Your task to perform on an android device: visit the assistant section in the google photos Image 0: 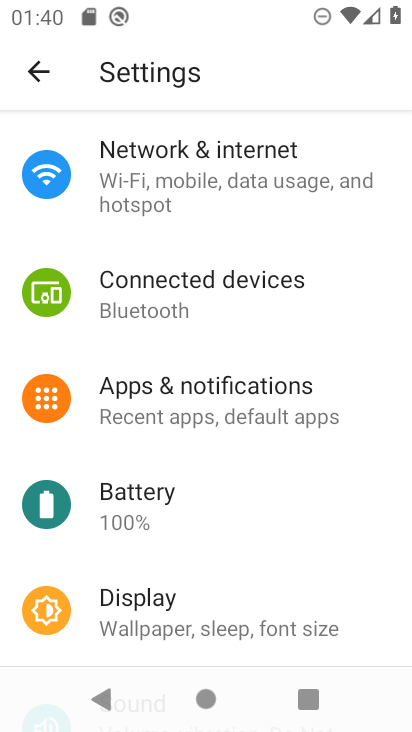
Step 0: press home button
Your task to perform on an android device: visit the assistant section in the google photos Image 1: 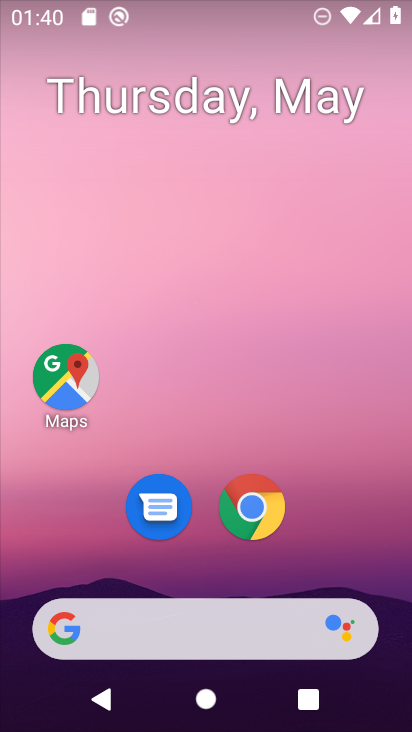
Step 1: drag from (361, 558) to (314, 243)
Your task to perform on an android device: visit the assistant section in the google photos Image 2: 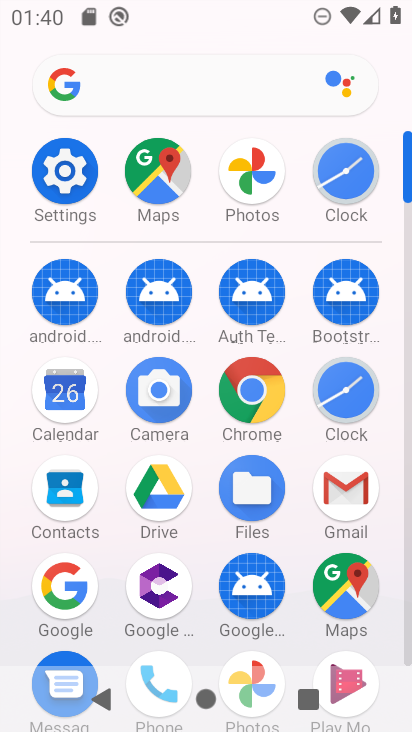
Step 2: click (259, 654)
Your task to perform on an android device: visit the assistant section in the google photos Image 3: 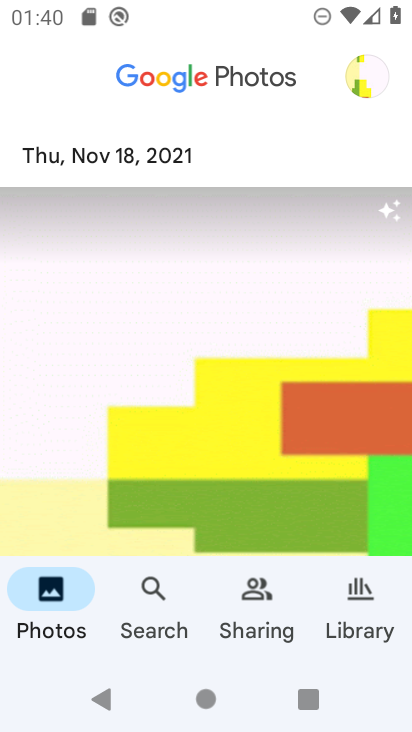
Step 3: click (355, 600)
Your task to perform on an android device: visit the assistant section in the google photos Image 4: 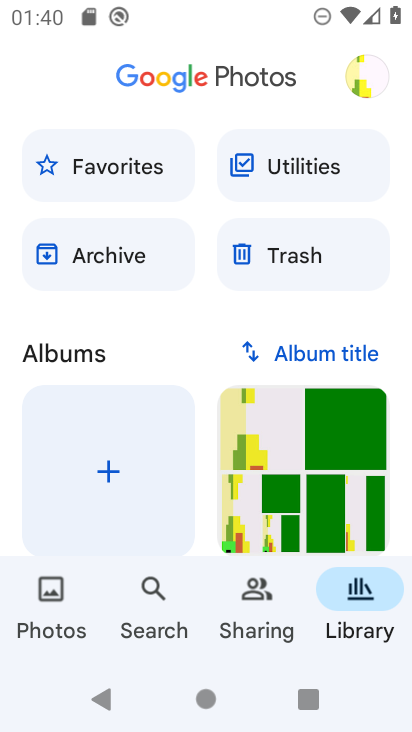
Step 4: click (324, 155)
Your task to perform on an android device: visit the assistant section in the google photos Image 5: 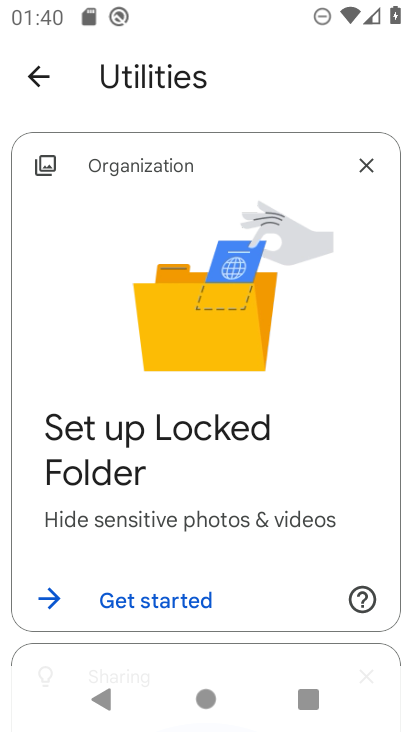
Step 5: task complete